Your task to perform on an android device: Open battery settings Image 0: 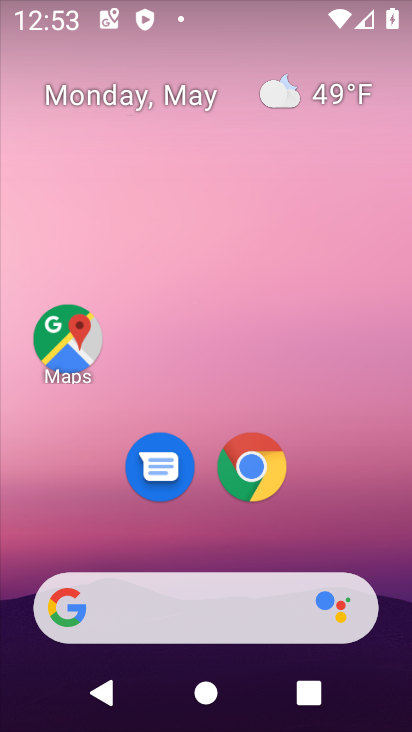
Step 0: drag from (369, 502) to (360, 148)
Your task to perform on an android device: Open battery settings Image 1: 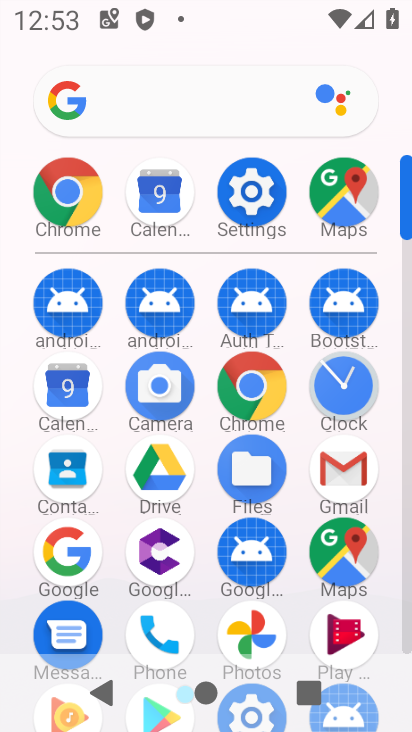
Step 1: click (259, 192)
Your task to perform on an android device: Open battery settings Image 2: 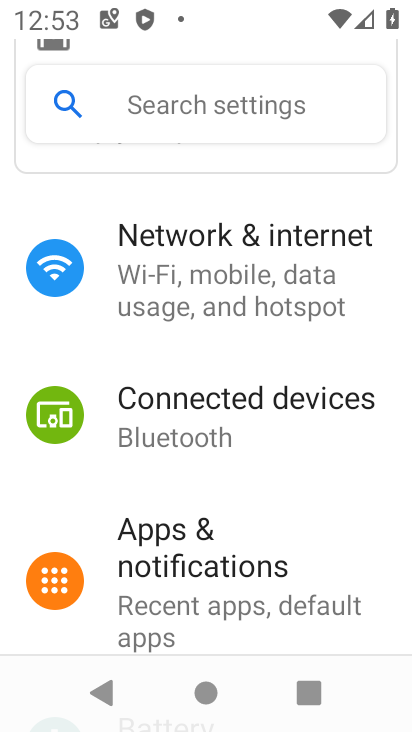
Step 2: drag from (304, 519) to (287, 238)
Your task to perform on an android device: Open battery settings Image 3: 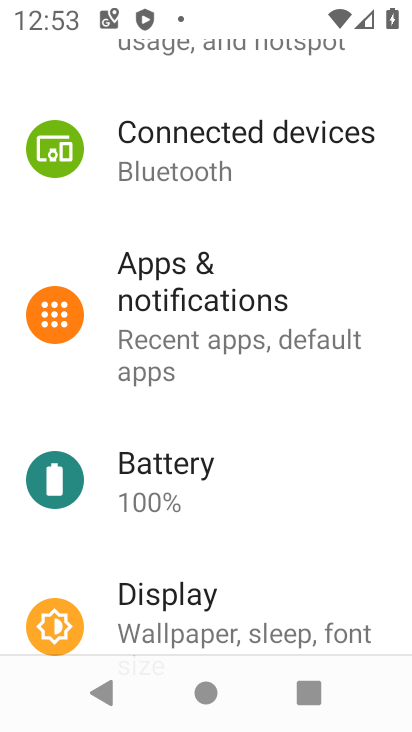
Step 3: click (227, 490)
Your task to perform on an android device: Open battery settings Image 4: 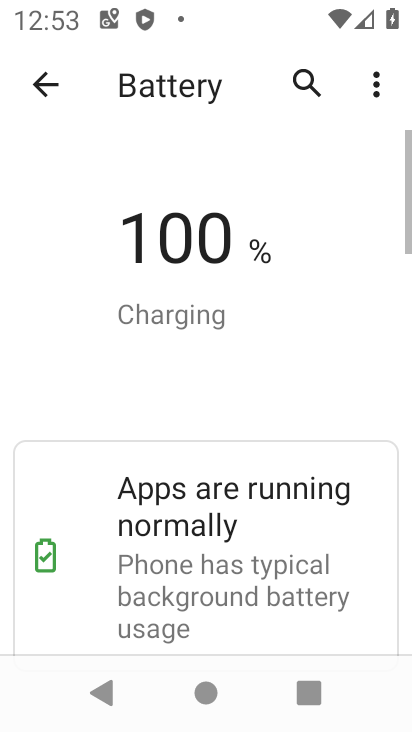
Step 4: drag from (293, 565) to (287, 283)
Your task to perform on an android device: Open battery settings Image 5: 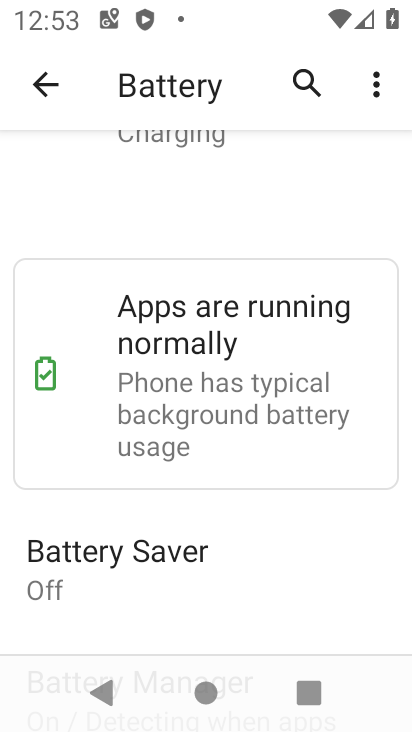
Step 5: click (374, 86)
Your task to perform on an android device: Open battery settings Image 6: 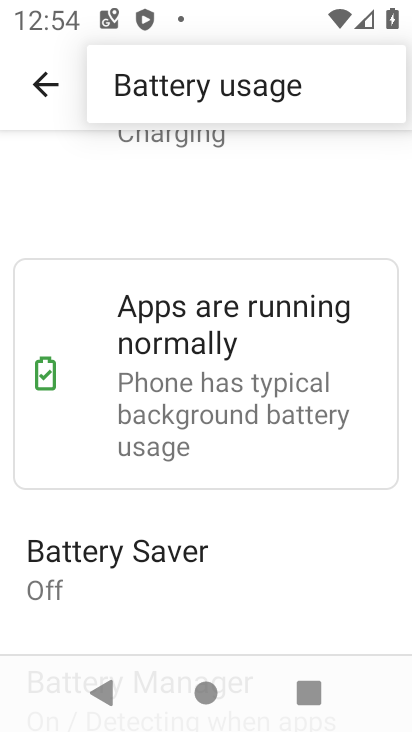
Step 6: task complete